Your task to perform on an android device: open the mobile data screen to see how much data has been used Image 0: 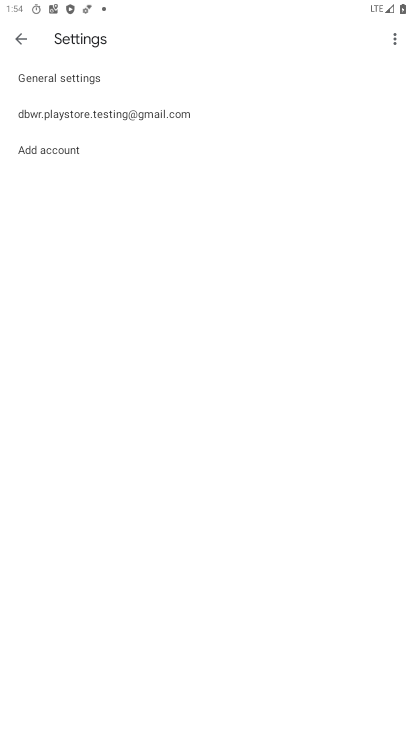
Step 0: press home button
Your task to perform on an android device: open the mobile data screen to see how much data has been used Image 1: 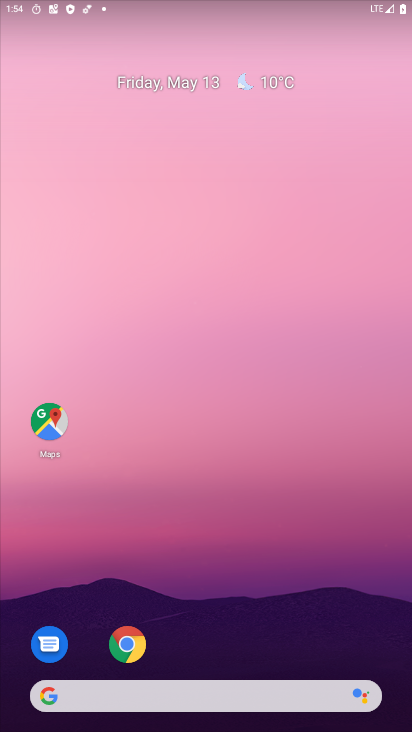
Step 1: drag from (254, 644) to (300, 1)
Your task to perform on an android device: open the mobile data screen to see how much data has been used Image 2: 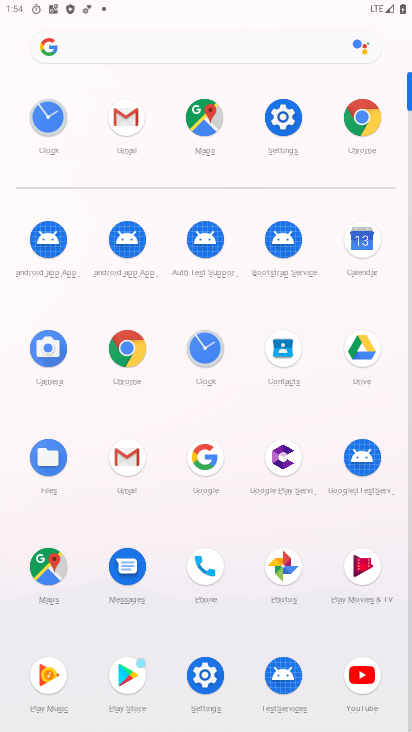
Step 2: click (288, 129)
Your task to perform on an android device: open the mobile data screen to see how much data has been used Image 3: 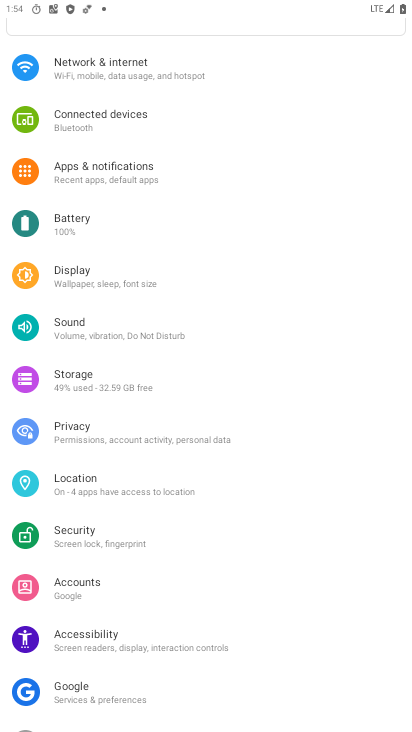
Step 3: click (148, 74)
Your task to perform on an android device: open the mobile data screen to see how much data has been used Image 4: 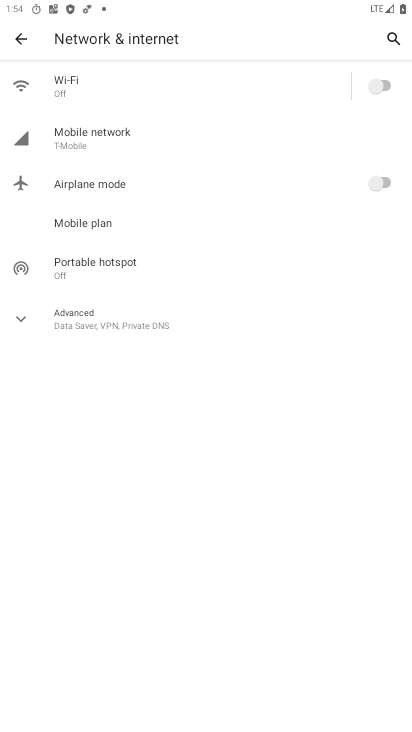
Step 4: click (86, 143)
Your task to perform on an android device: open the mobile data screen to see how much data has been used Image 5: 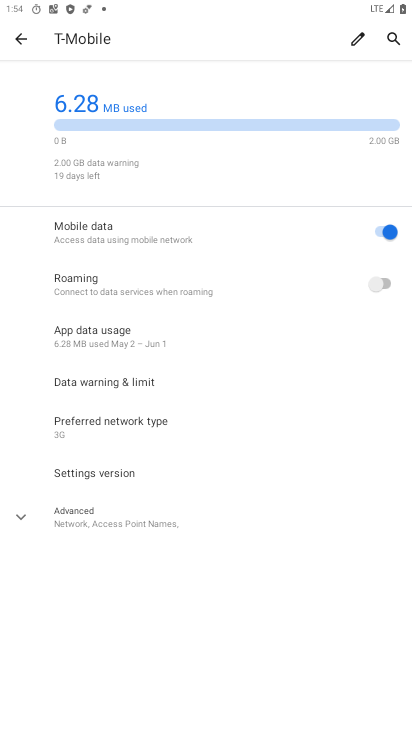
Step 5: task complete